Your task to perform on an android device: Open Android settings Image 0: 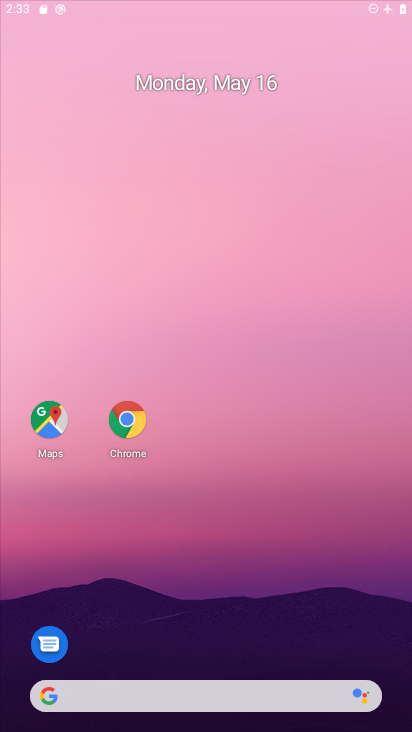
Step 0: drag from (227, 543) to (220, 134)
Your task to perform on an android device: Open Android settings Image 1: 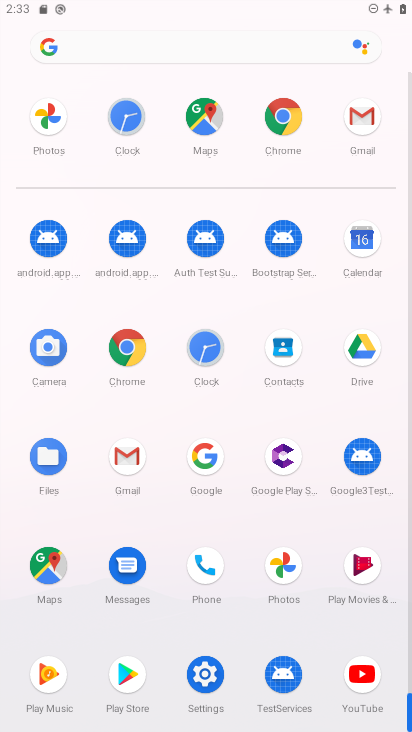
Step 1: click (204, 670)
Your task to perform on an android device: Open Android settings Image 2: 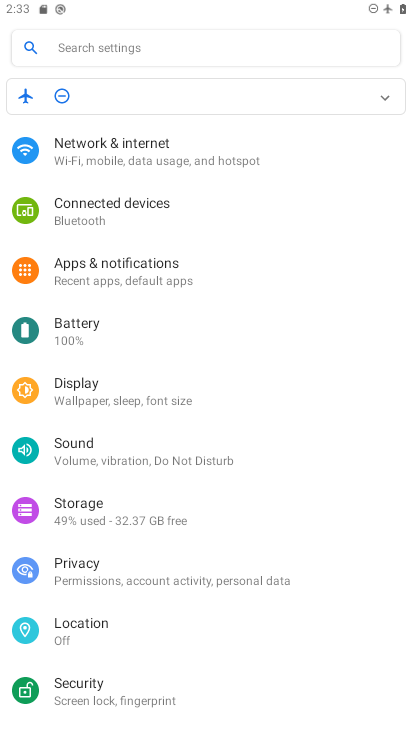
Step 2: drag from (165, 685) to (90, 22)
Your task to perform on an android device: Open Android settings Image 3: 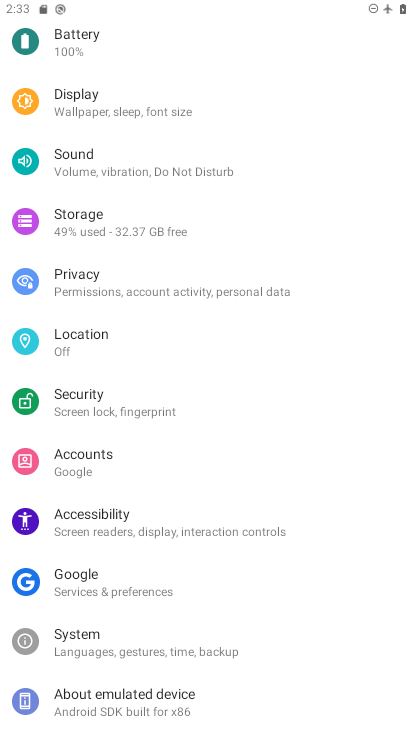
Step 3: click (158, 705)
Your task to perform on an android device: Open Android settings Image 4: 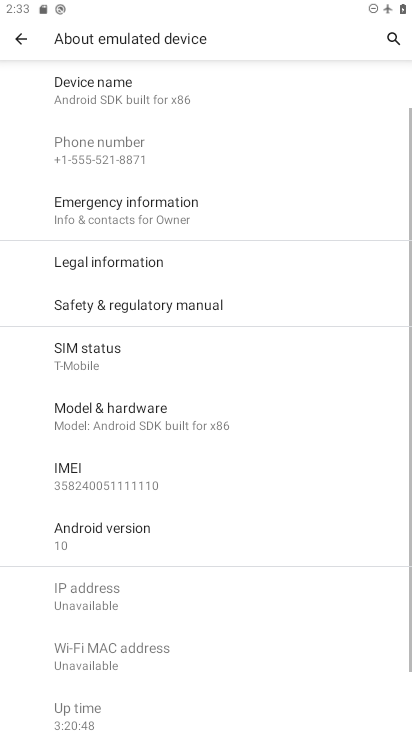
Step 4: click (161, 545)
Your task to perform on an android device: Open Android settings Image 5: 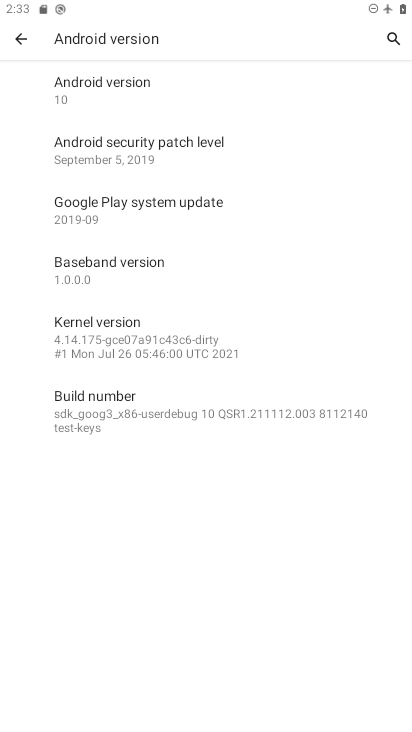
Step 5: click (173, 90)
Your task to perform on an android device: Open Android settings Image 6: 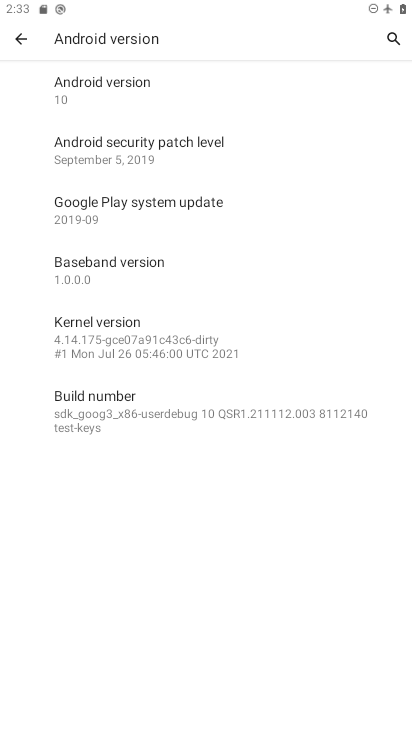
Step 6: task complete